Your task to perform on an android device: Go to settings Image 0: 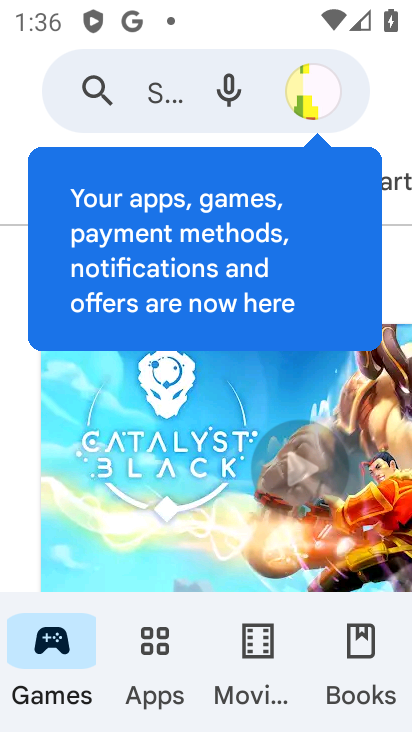
Step 0: press home button
Your task to perform on an android device: Go to settings Image 1: 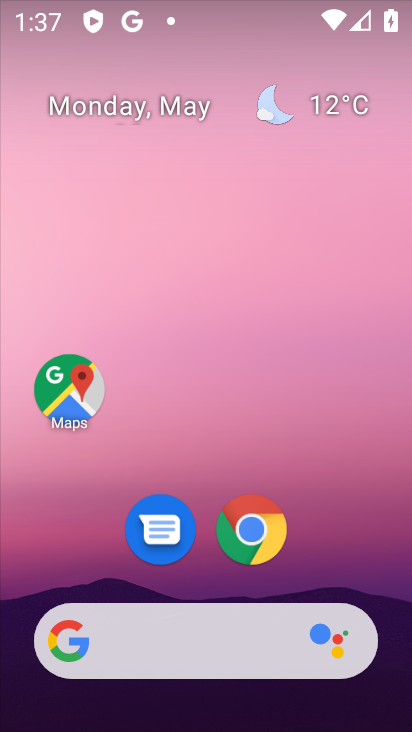
Step 1: drag from (394, 618) to (315, 117)
Your task to perform on an android device: Go to settings Image 2: 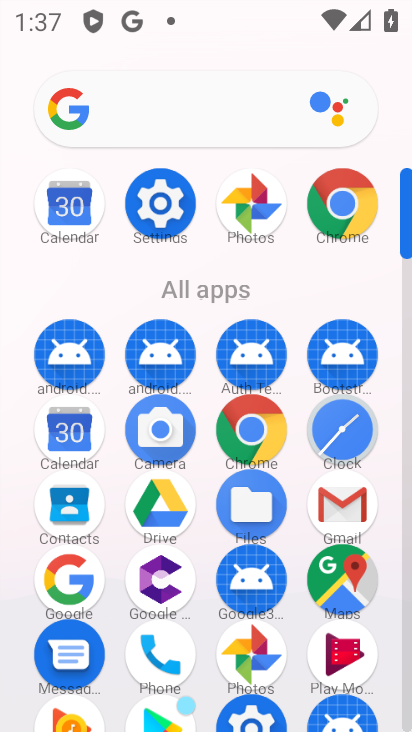
Step 2: click (406, 629)
Your task to perform on an android device: Go to settings Image 3: 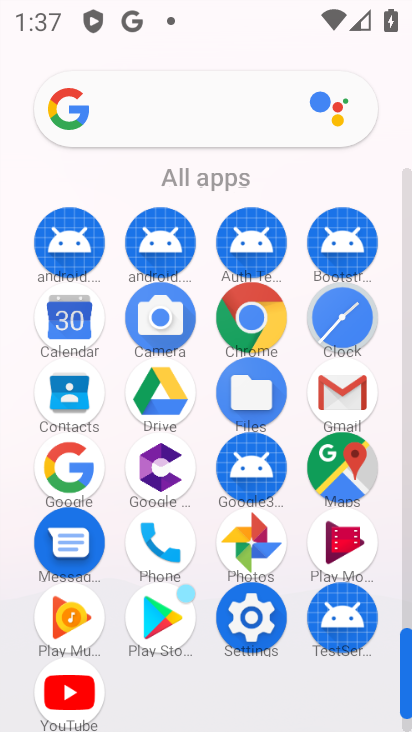
Step 3: click (253, 619)
Your task to perform on an android device: Go to settings Image 4: 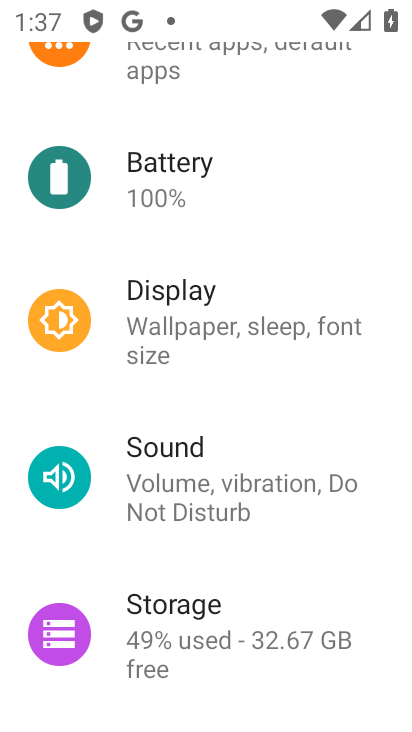
Step 4: task complete